Your task to perform on an android device: turn on the 12-hour format for clock Image 0: 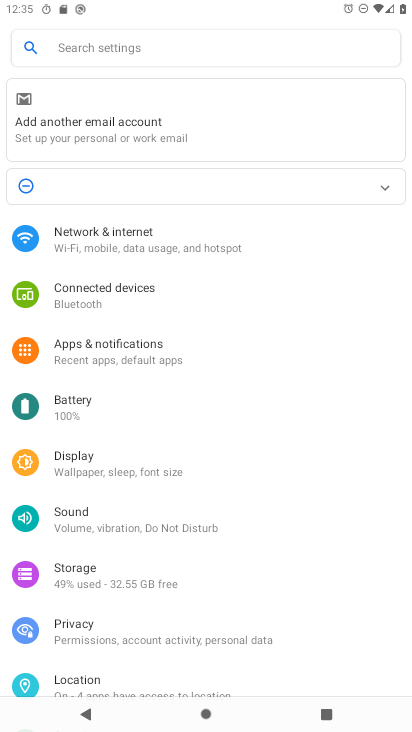
Step 0: press home button
Your task to perform on an android device: turn on the 12-hour format for clock Image 1: 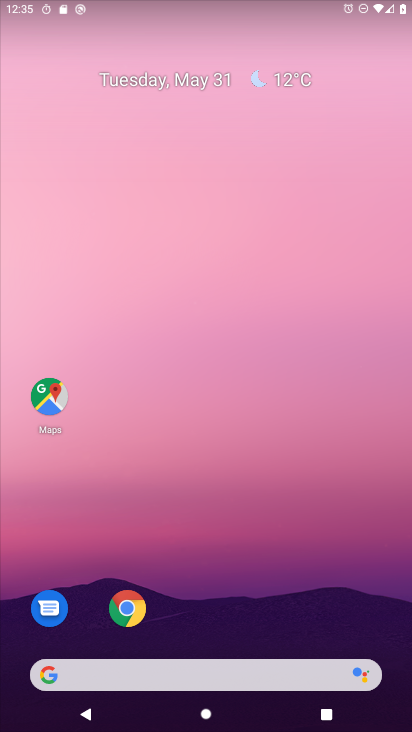
Step 1: drag from (282, 651) to (301, 0)
Your task to perform on an android device: turn on the 12-hour format for clock Image 2: 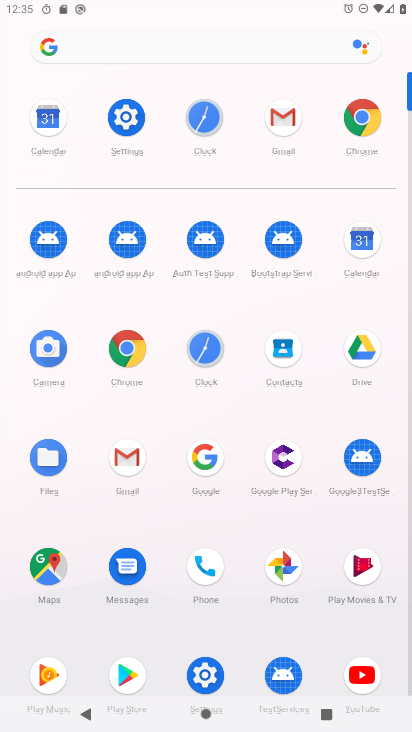
Step 2: click (199, 123)
Your task to perform on an android device: turn on the 12-hour format for clock Image 3: 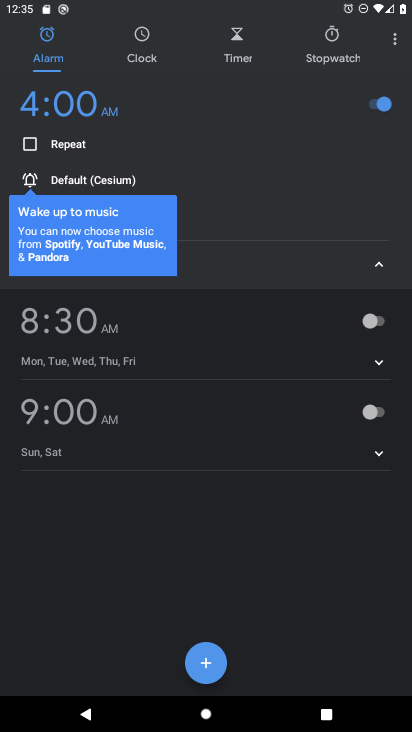
Step 3: click (393, 44)
Your task to perform on an android device: turn on the 12-hour format for clock Image 4: 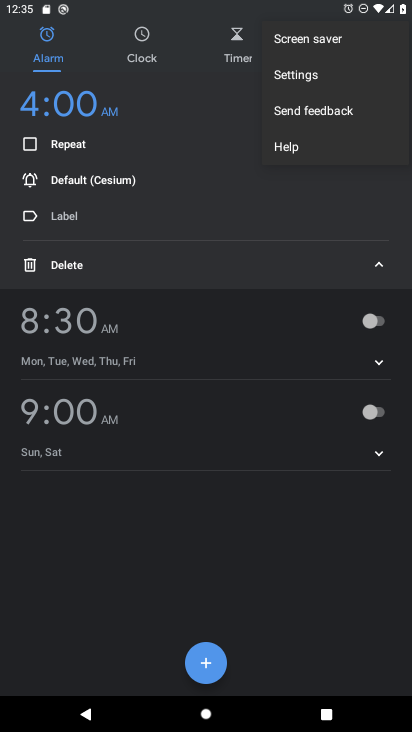
Step 4: click (309, 81)
Your task to perform on an android device: turn on the 12-hour format for clock Image 5: 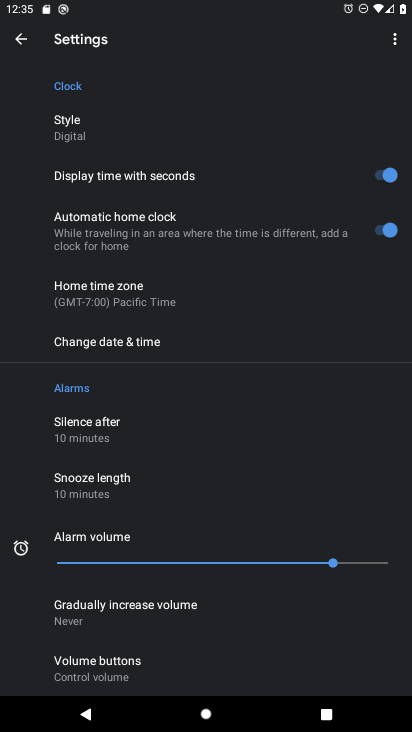
Step 5: click (106, 349)
Your task to perform on an android device: turn on the 12-hour format for clock Image 6: 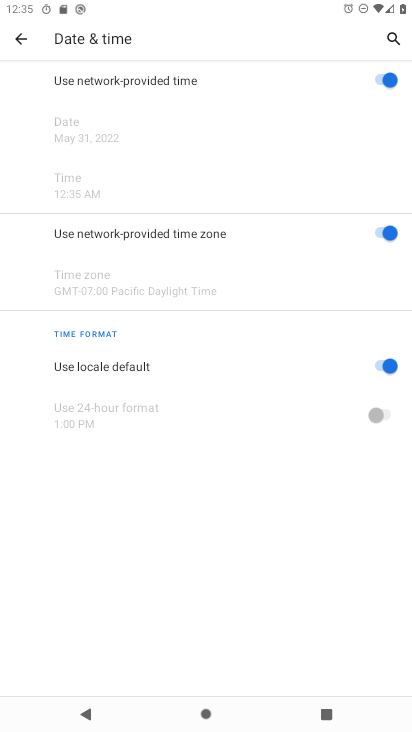
Step 6: task complete